Your task to perform on an android device: turn pop-ups off in chrome Image 0: 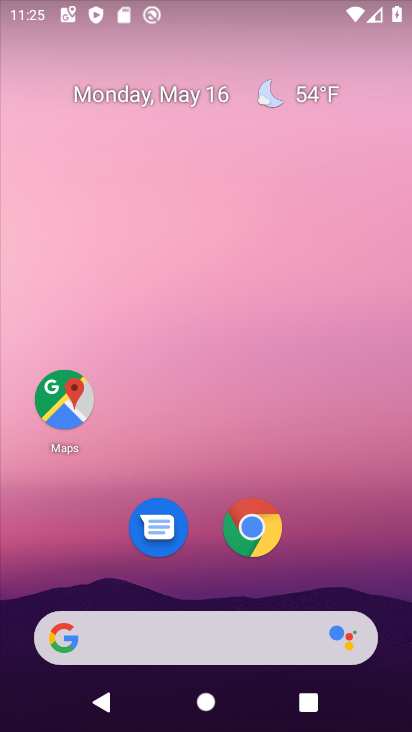
Step 0: drag from (268, 622) to (280, 123)
Your task to perform on an android device: turn pop-ups off in chrome Image 1: 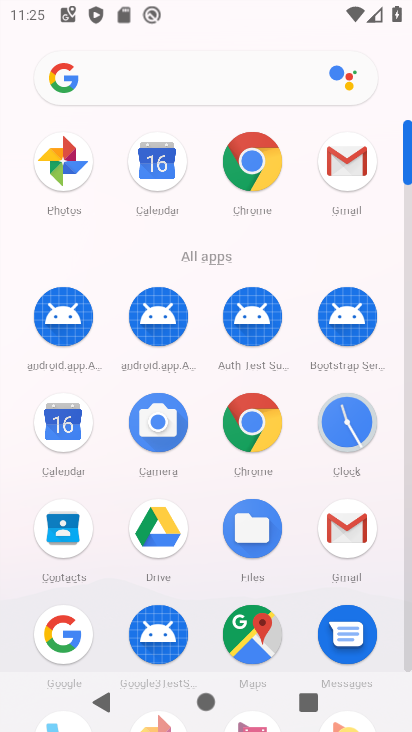
Step 1: click (272, 170)
Your task to perform on an android device: turn pop-ups off in chrome Image 2: 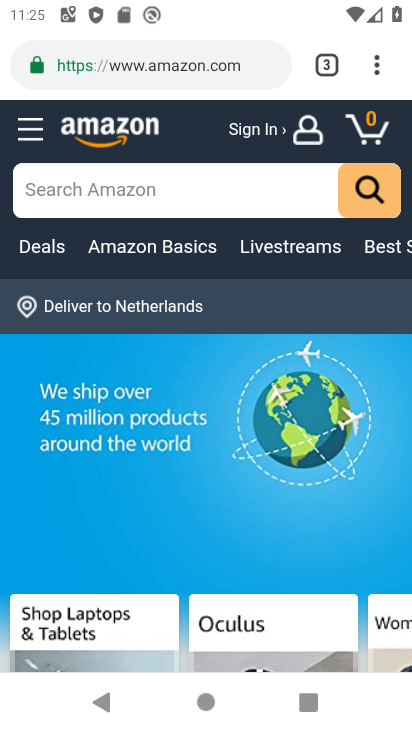
Step 2: click (380, 63)
Your task to perform on an android device: turn pop-ups off in chrome Image 3: 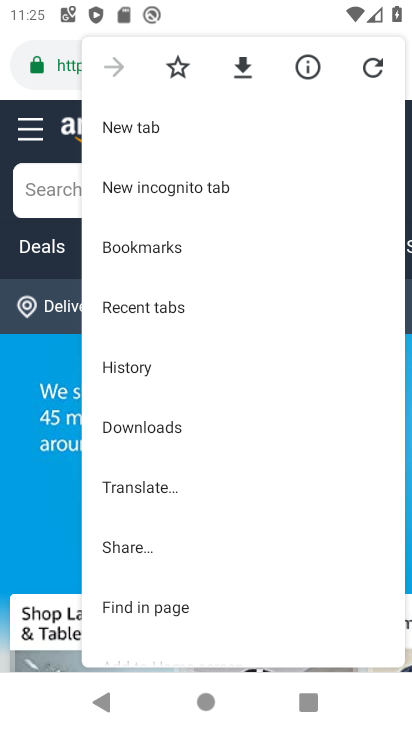
Step 3: drag from (242, 384) to (239, 160)
Your task to perform on an android device: turn pop-ups off in chrome Image 4: 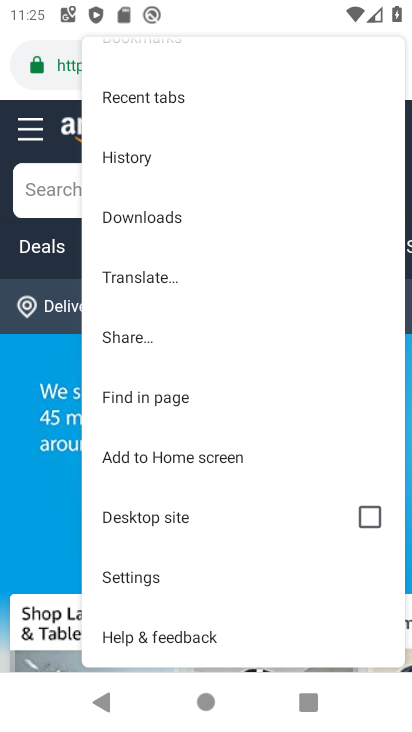
Step 4: click (137, 585)
Your task to perform on an android device: turn pop-ups off in chrome Image 5: 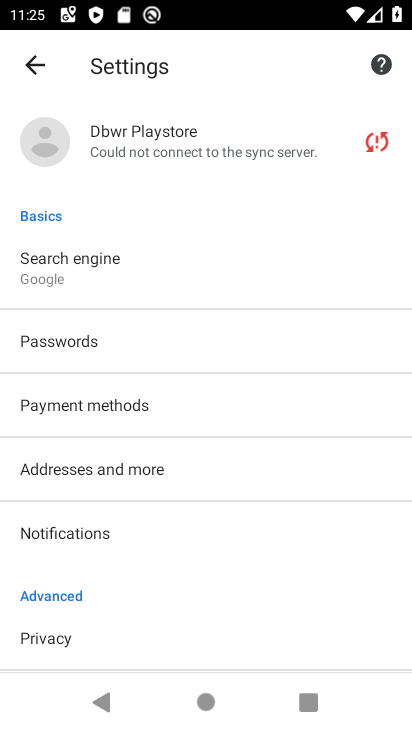
Step 5: drag from (137, 585) to (220, 279)
Your task to perform on an android device: turn pop-ups off in chrome Image 6: 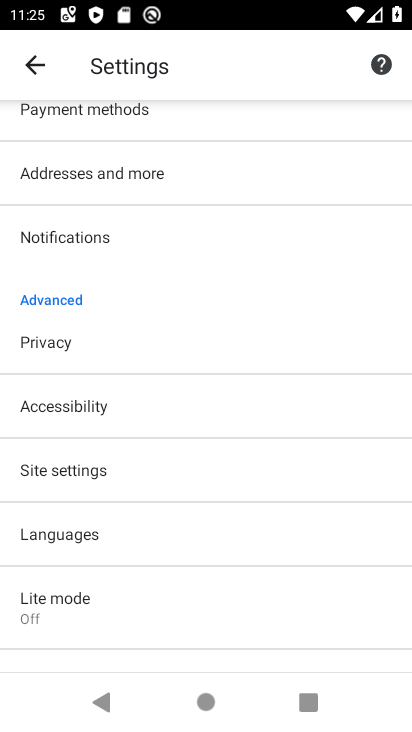
Step 6: drag from (121, 537) to (142, 402)
Your task to perform on an android device: turn pop-ups off in chrome Image 7: 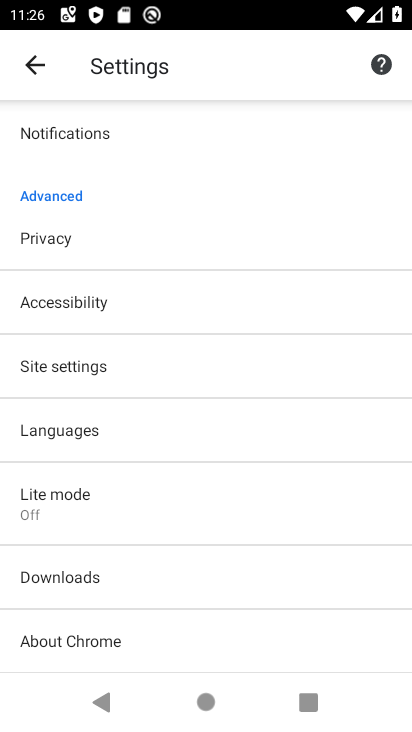
Step 7: click (114, 373)
Your task to perform on an android device: turn pop-ups off in chrome Image 8: 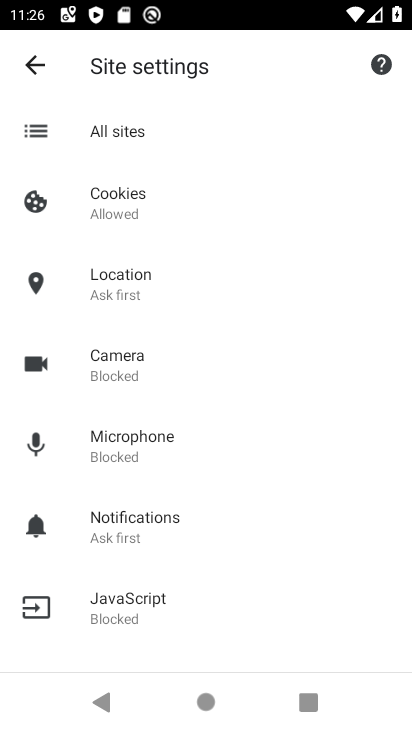
Step 8: drag from (133, 495) to (204, 261)
Your task to perform on an android device: turn pop-ups off in chrome Image 9: 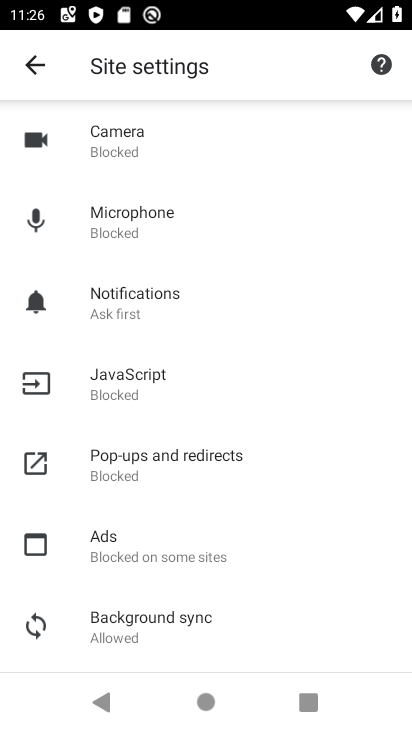
Step 9: click (168, 459)
Your task to perform on an android device: turn pop-ups off in chrome Image 10: 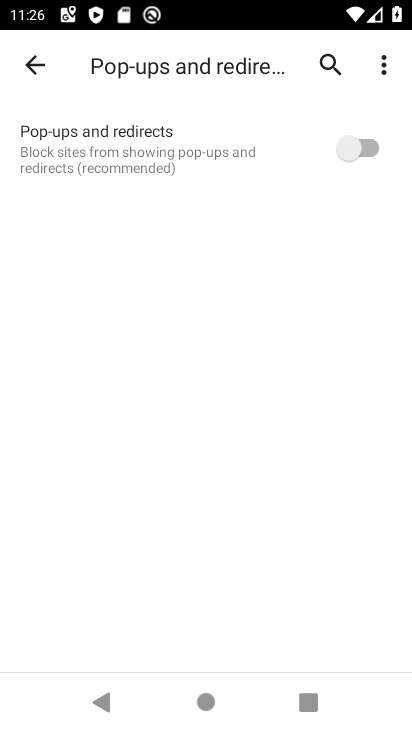
Step 10: click (366, 109)
Your task to perform on an android device: turn pop-ups off in chrome Image 11: 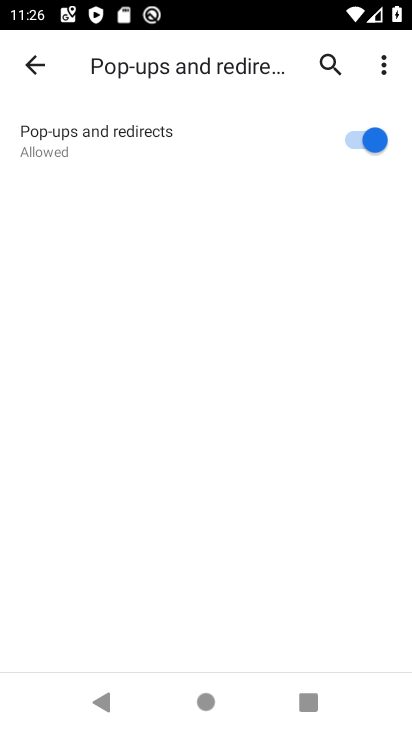
Step 11: click (338, 144)
Your task to perform on an android device: turn pop-ups off in chrome Image 12: 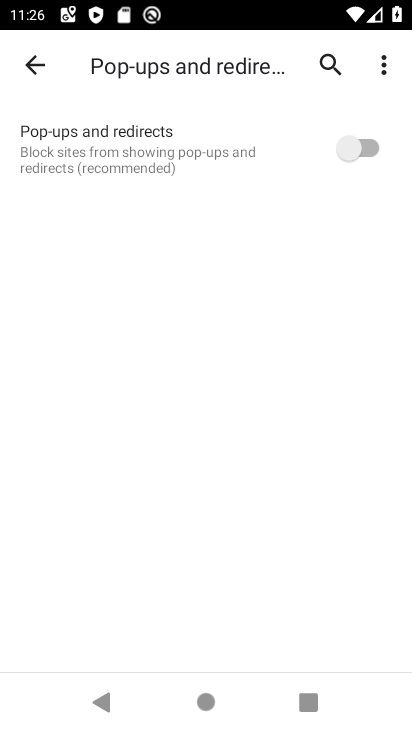
Step 12: task complete